Your task to perform on an android device: When is my next meeting? Image 0: 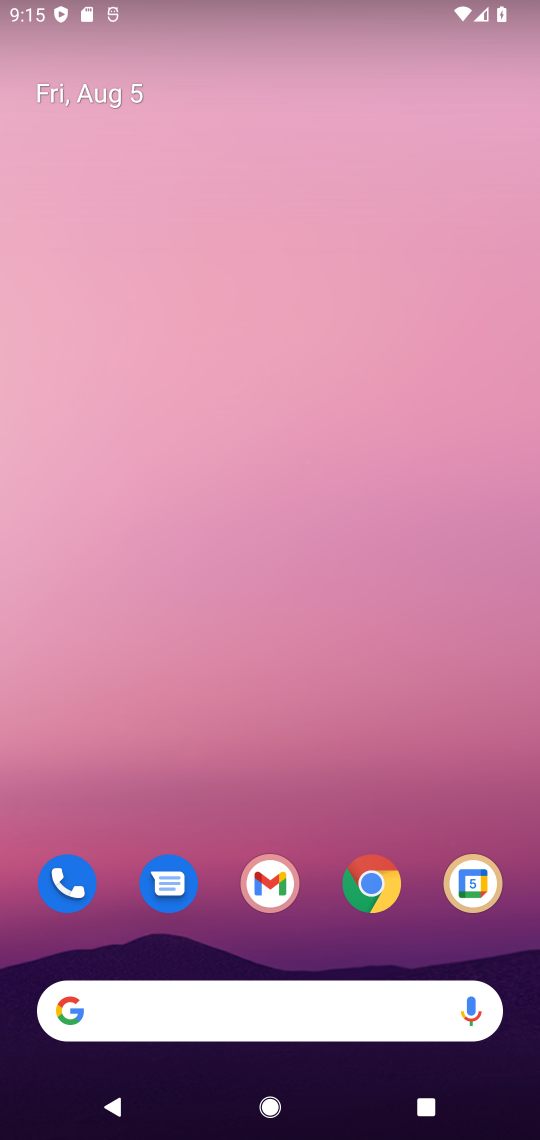
Step 0: drag from (247, 951) to (386, 78)
Your task to perform on an android device: When is my next meeting? Image 1: 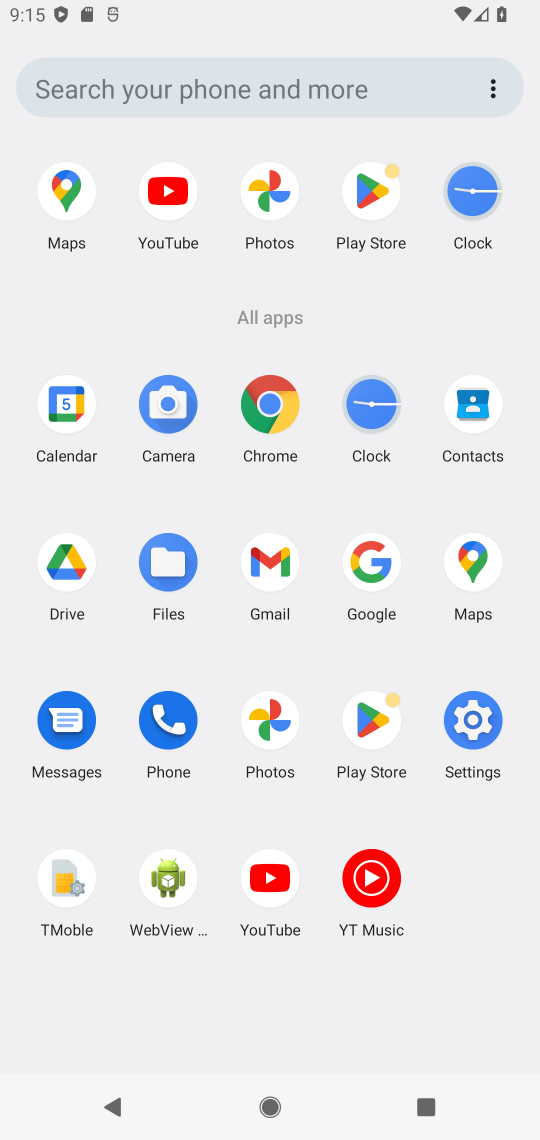
Step 1: click (68, 404)
Your task to perform on an android device: When is my next meeting? Image 2: 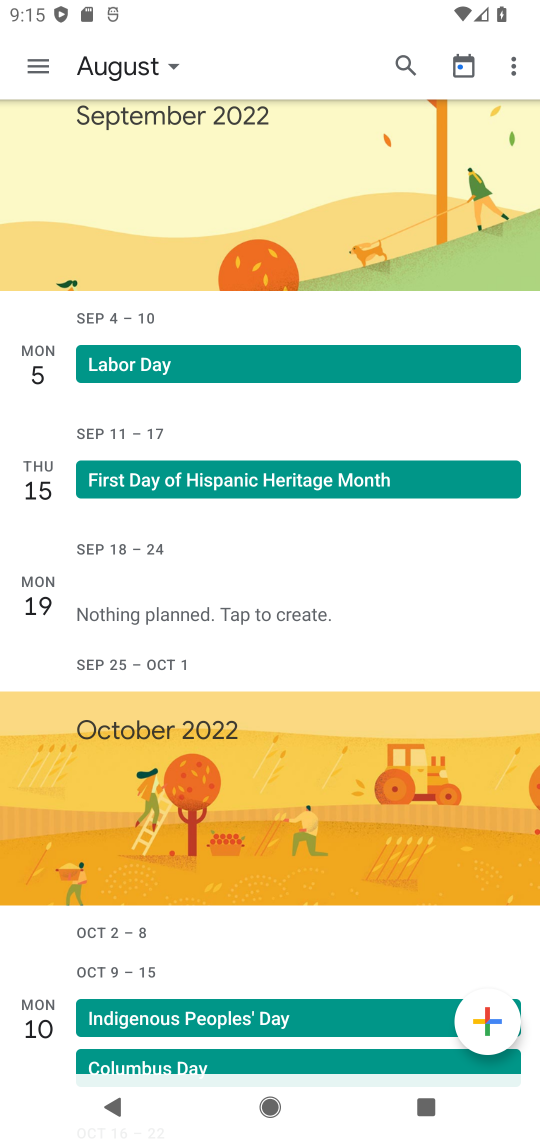
Step 2: task complete